Your task to perform on an android device: open app "Fetch Rewards" Image 0: 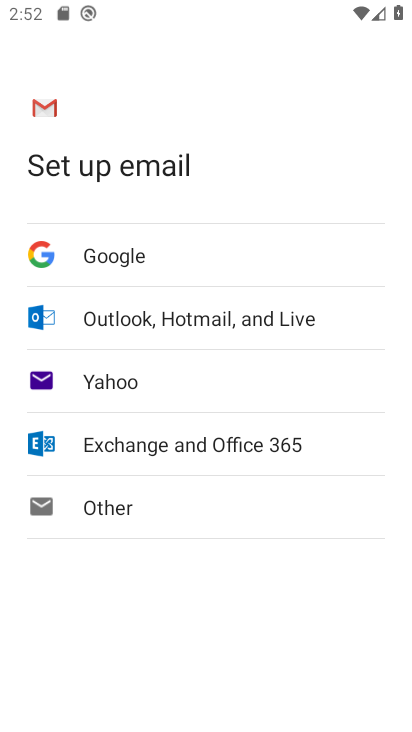
Step 0: press back button
Your task to perform on an android device: open app "Fetch Rewards" Image 1: 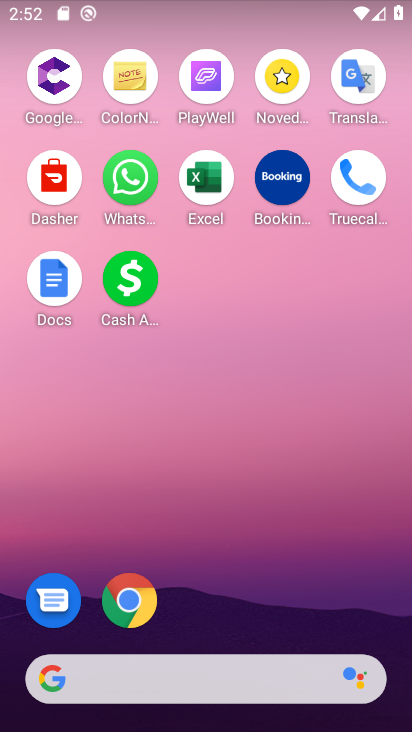
Step 1: drag from (232, 560) to (298, 81)
Your task to perform on an android device: open app "Fetch Rewards" Image 2: 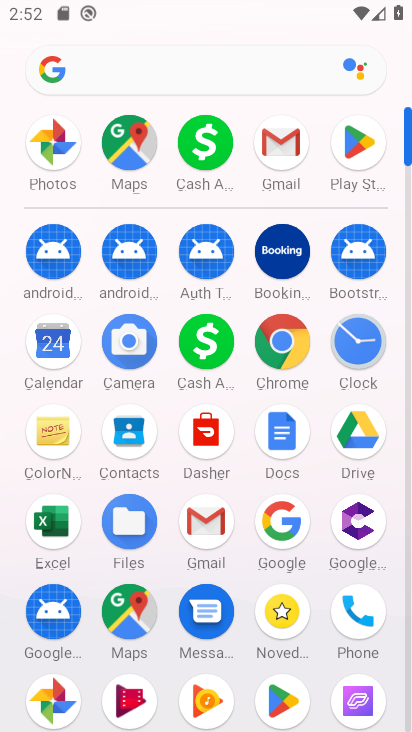
Step 2: click (358, 152)
Your task to perform on an android device: open app "Fetch Rewards" Image 3: 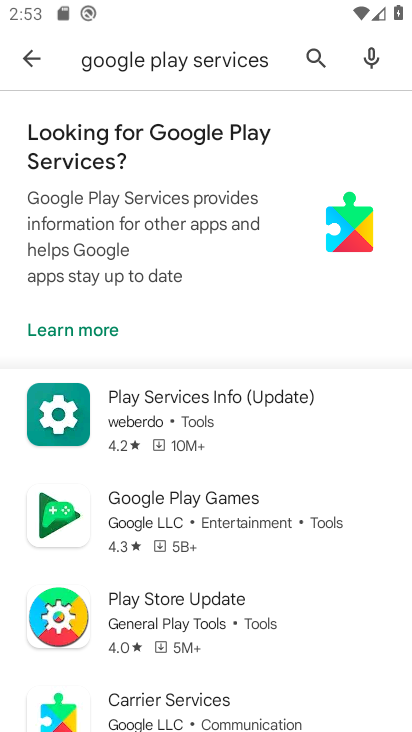
Step 3: click (305, 63)
Your task to perform on an android device: open app "Fetch Rewards" Image 4: 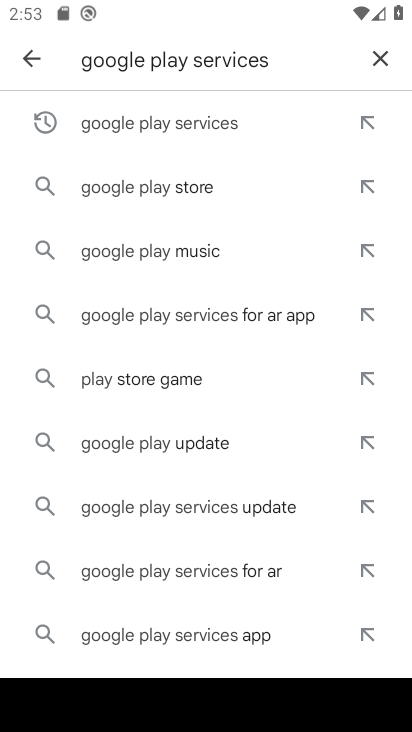
Step 4: click (382, 50)
Your task to perform on an android device: open app "Fetch Rewards" Image 5: 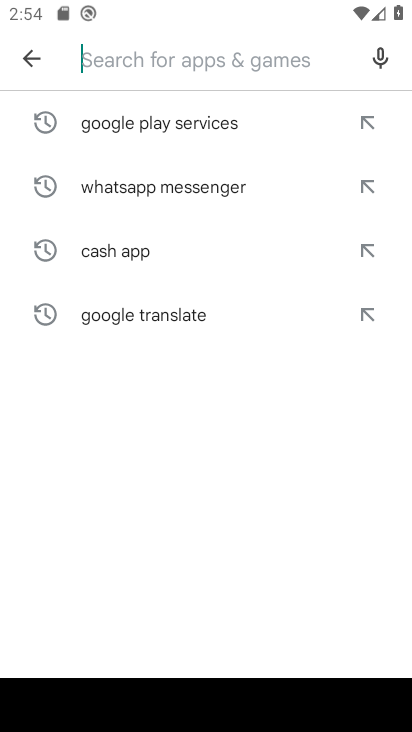
Step 5: click (130, 67)
Your task to perform on an android device: open app "Fetch Rewards" Image 6: 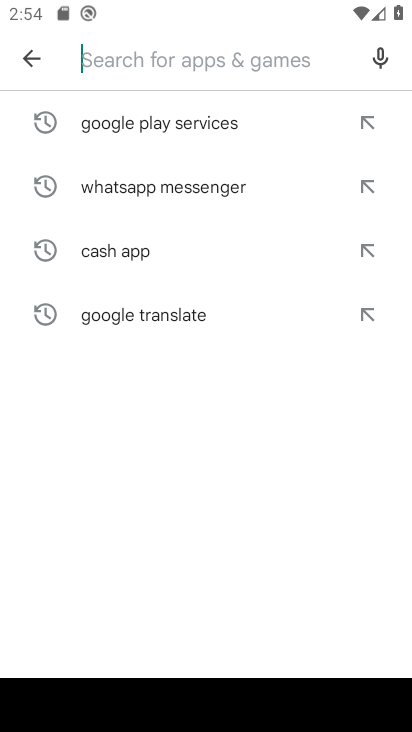
Step 6: type "Fetch Rewards"
Your task to perform on an android device: open app "Fetch Rewards" Image 7: 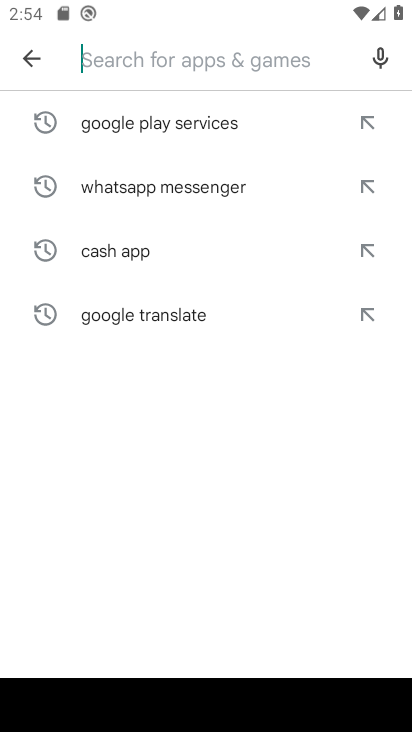
Step 7: click (255, 530)
Your task to perform on an android device: open app "Fetch Rewards" Image 8: 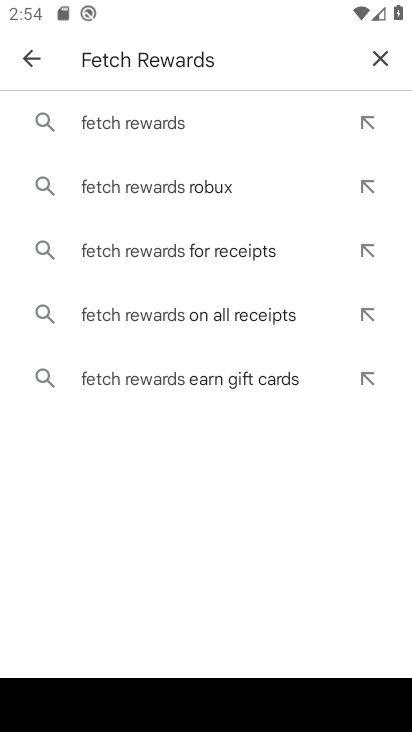
Step 8: click (161, 121)
Your task to perform on an android device: open app "Fetch Rewards" Image 9: 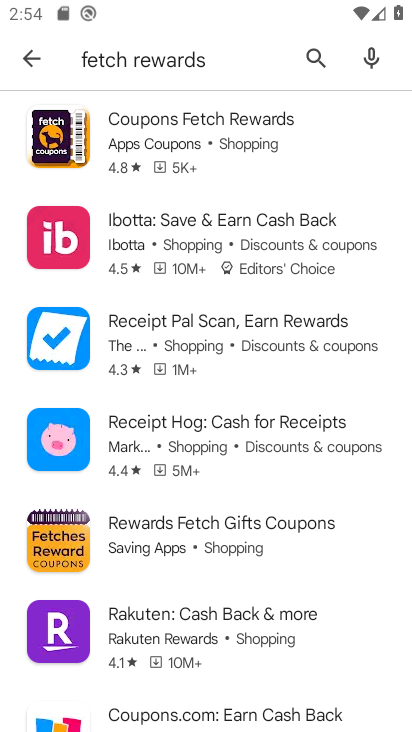
Step 9: task complete